Your task to perform on an android device: toggle priority inbox in the gmail app Image 0: 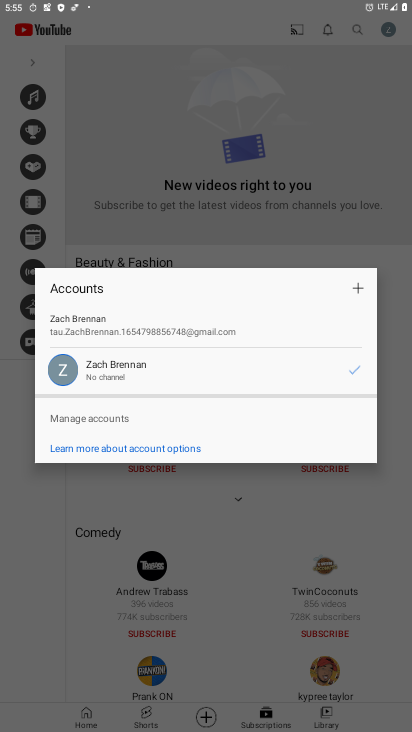
Step 0: press home button
Your task to perform on an android device: toggle priority inbox in the gmail app Image 1: 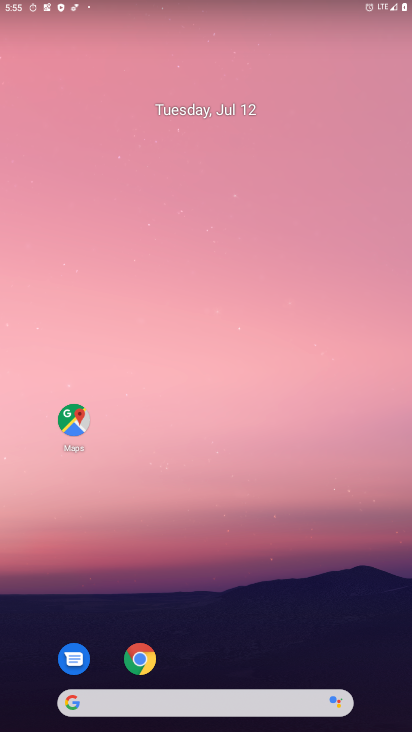
Step 1: drag from (176, 637) to (267, 3)
Your task to perform on an android device: toggle priority inbox in the gmail app Image 2: 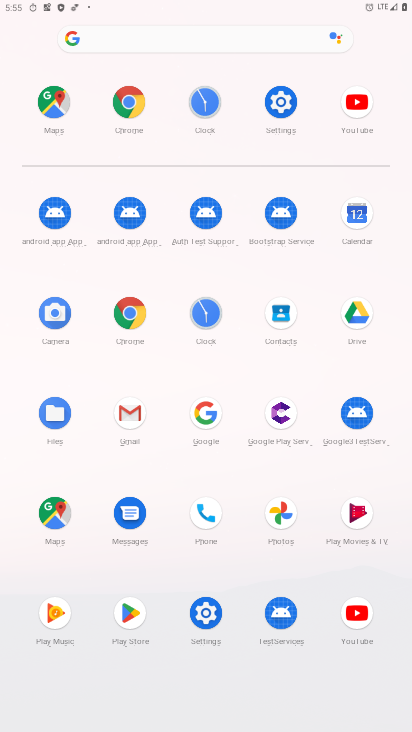
Step 2: click (132, 403)
Your task to perform on an android device: toggle priority inbox in the gmail app Image 3: 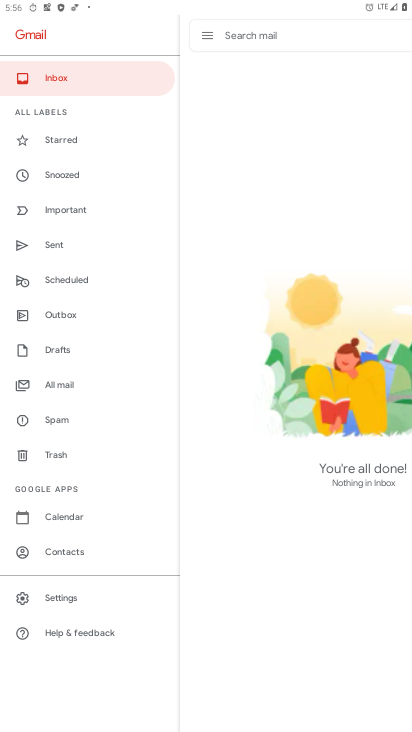
Step 3: click (58, 604)
Your task to perform on an android device: toggle priority inbox in the gmail app Image 4: 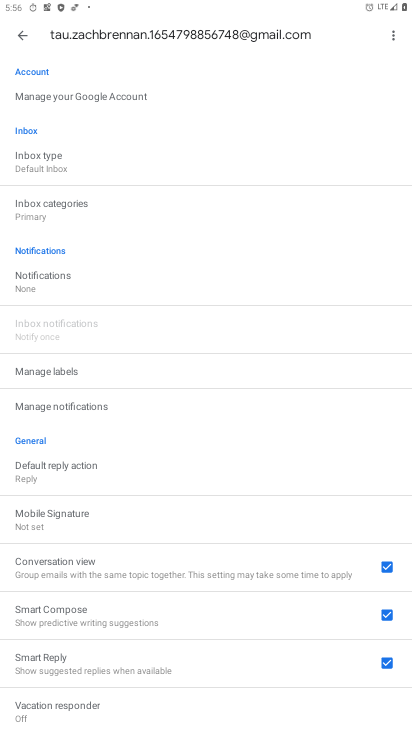
Step 4: click (42, 155)
Your task to perform on an android device: toggle priority inbox in the gmail app Image 5: 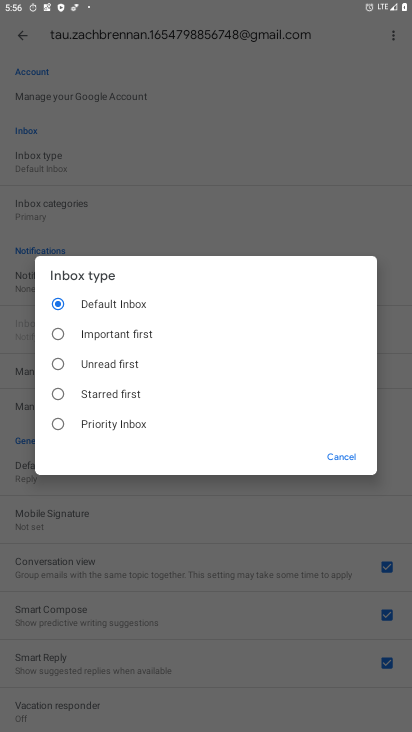
Step 5: click (56, 419)
Your task to perform on an android device: toggle priority inbox in the gmail app Image 6: 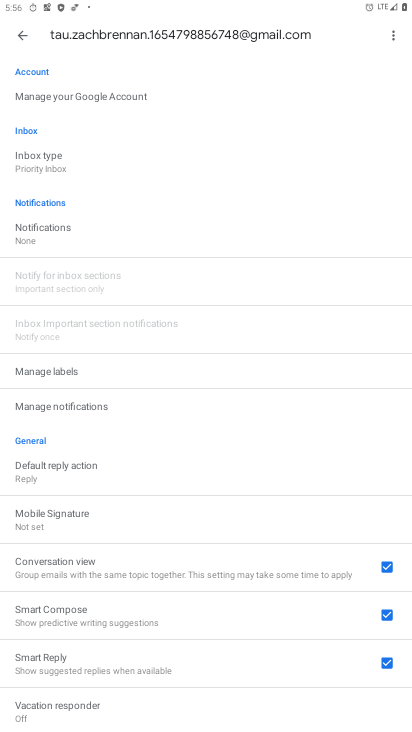
Step 6: task complete